Your task to perform on an android device: Do I have any events tomorrow? Image 0: 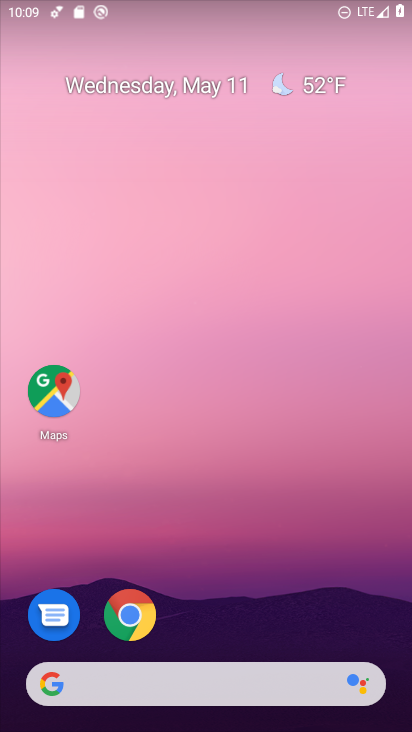
Step 0: drag from (262, 569) to (222, 51)
Your task to perform on an android device: Do I have any events tomorrow? Image 1: 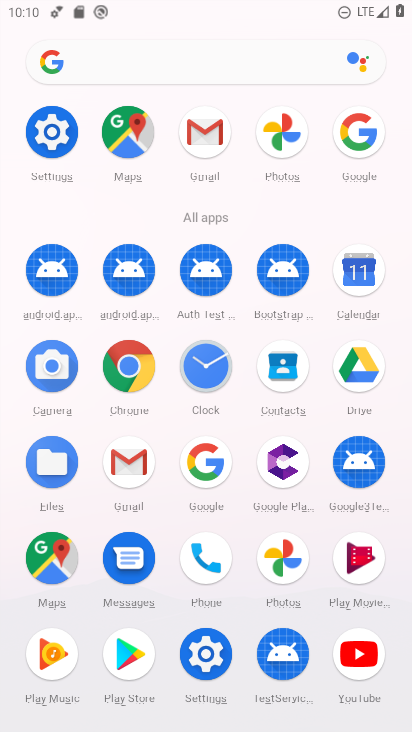
Step 1: click (359, 274)
Your task to perform on an android device: Do I have any events tomorrow? Image 2: 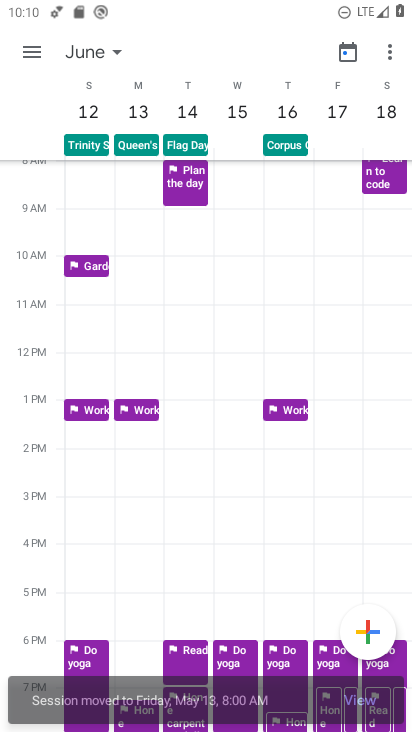
Step 2: click (348, 54)
Your task to perform on an android device: Do I have any events tomorrow? Image 3: 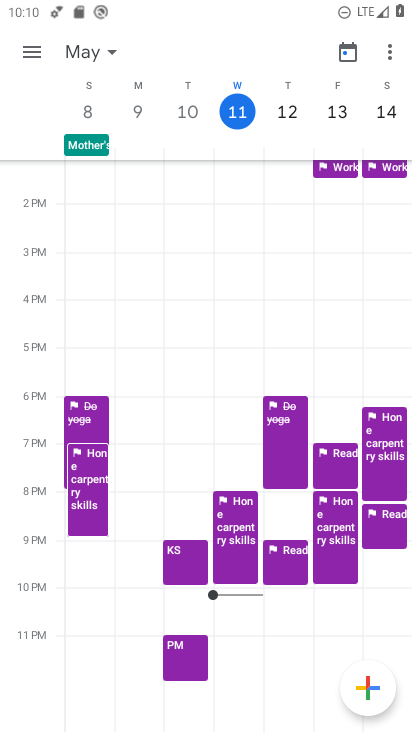
Step 3: click (109, 48)
Your task to perform on an android device: Do I have any events tomorrow? Image 4: 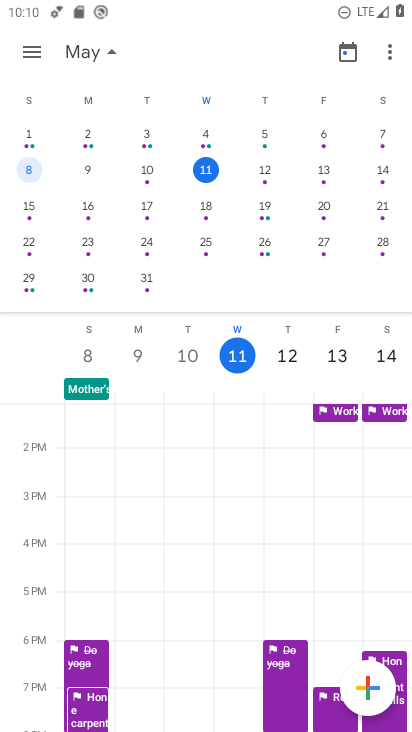
Step 4: click (257, 166)
Your task to perform on an android device: Do I have any events tomorrow? Image 5: 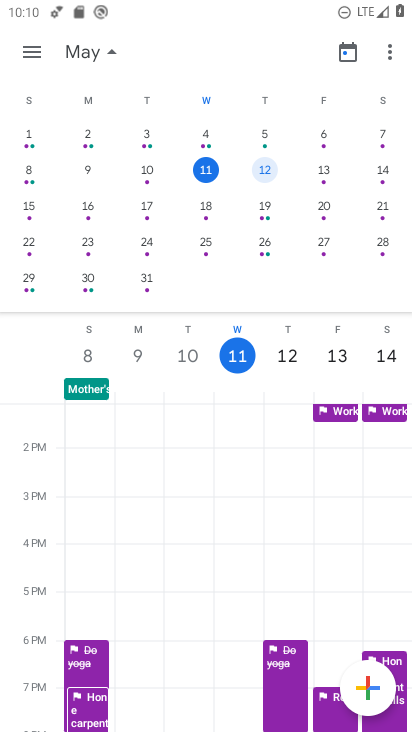
Step 5: click (32, 49)
Your task to perform on an android device: Do I have any events tomorrow? Image 6: 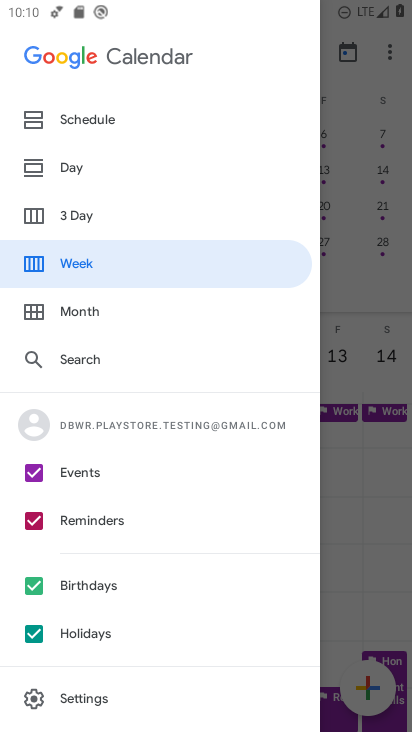
Step 6: click (80, 117)
Your task to perform on an android device: Do I have any events tomorrow? Image 7: 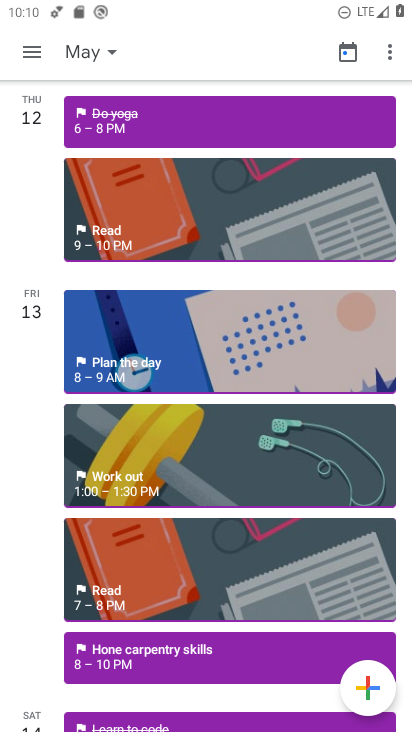
Step 7: task complete